Your task to perform on an android device: Toggle the flashlight Image 0: 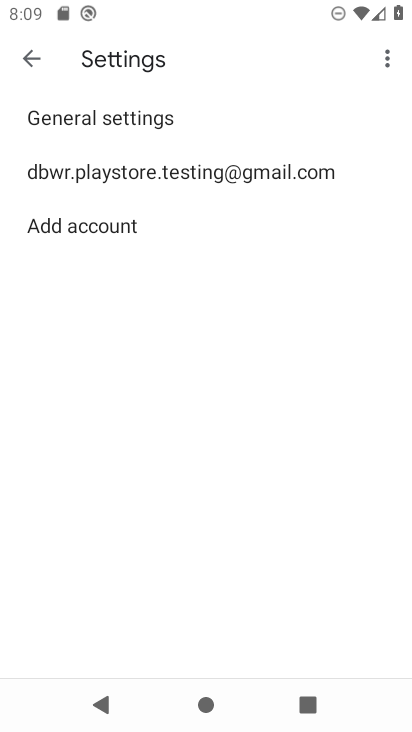
Step 0: press home button
Your task to perform on an android device: Toggle the flashlight Image 1: 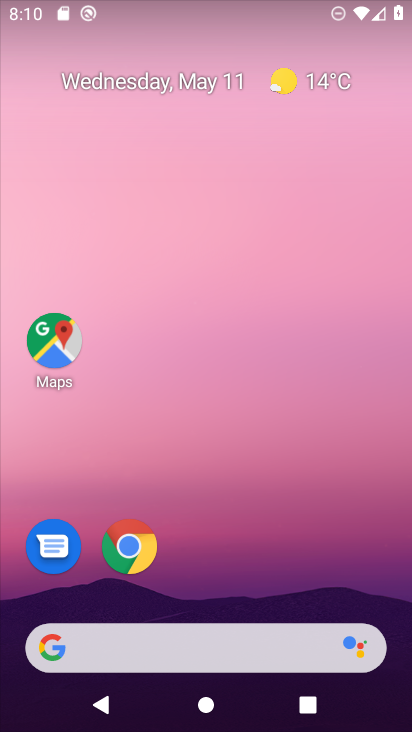
Step 1: drag from (165, 604) to (123, 182)
Your task to perform on an android device: Toggle the flashlight Image 2: 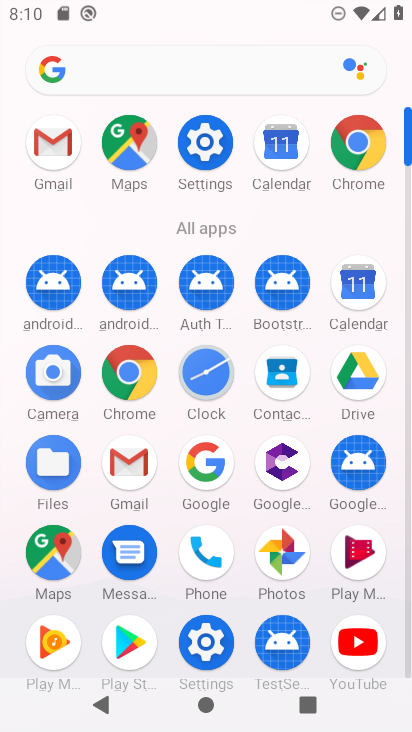
Step 2: click (203, 136)
Your task to perform on an android device: Toggle the flashlight Image 3: 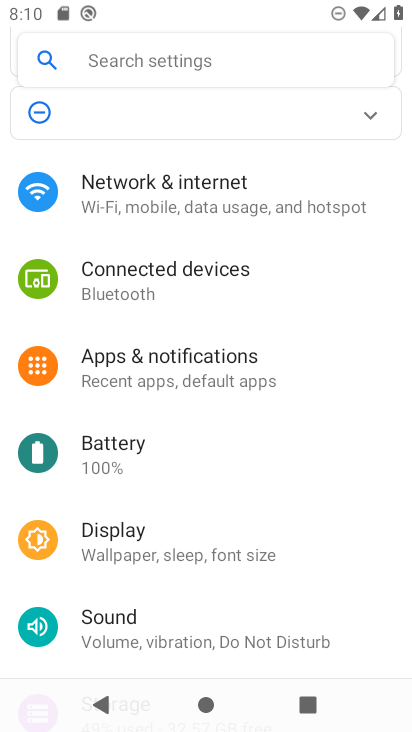
Step 3: task complete